Your task to perform on an android device: open device folders in google photos Image 0: 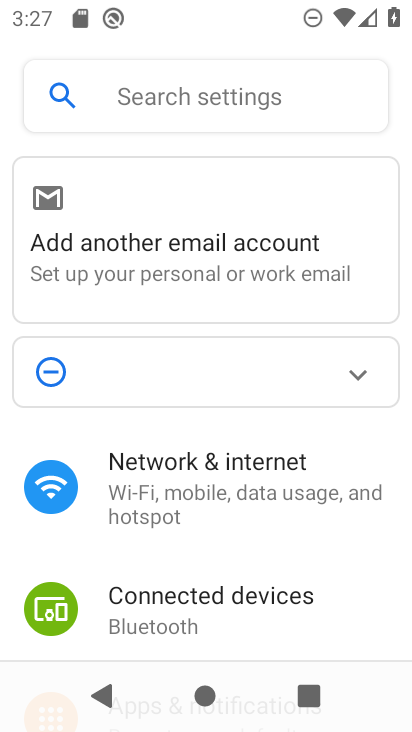
Step 0: press home button
Your task to perform on an android device: open device folders in google photos Image 1: 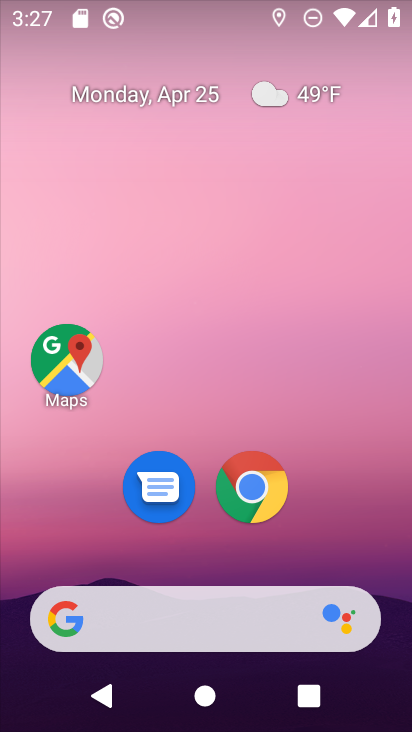
Step 1: drag from (376, 575) to (383, 3)
Your task to perform on an android device: open device folders in google photos Image 2: 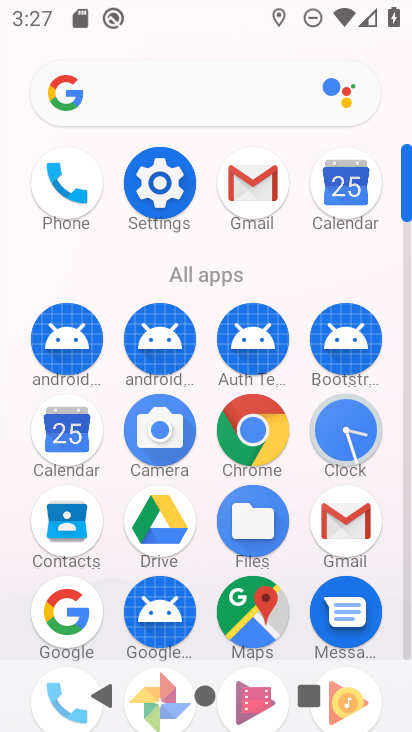
Step 2: click (405, 567)
Your task to perform on an android device: open device folders in google photos Image 3: 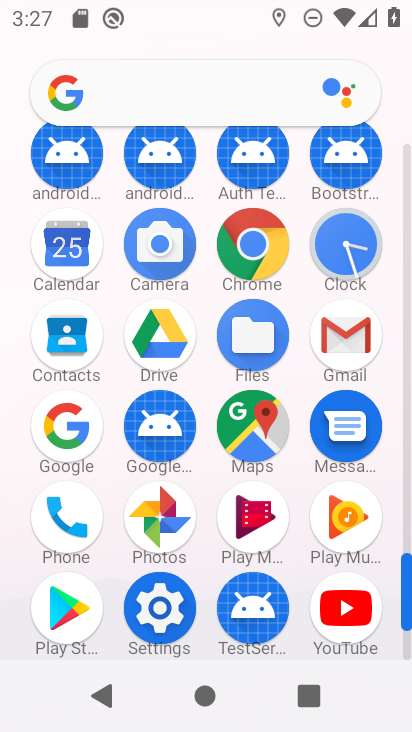
Step 3: click (159, 513)
Your task to perform on an android device: open device folders in google photos Image 4: 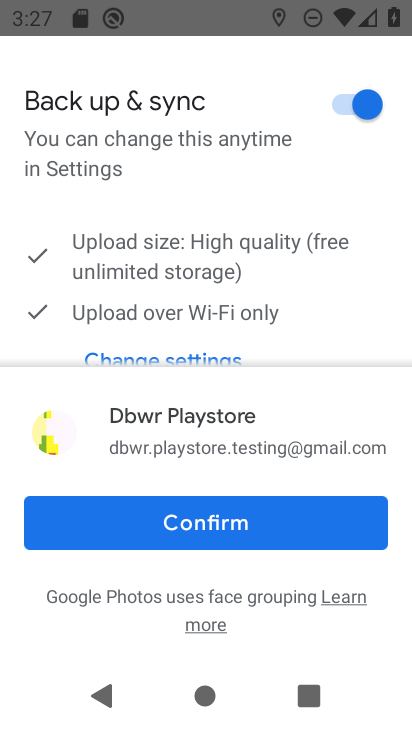
Step 4: click (239, 530)
Your task to perform on an android device: open device folders in google photos Image 5: 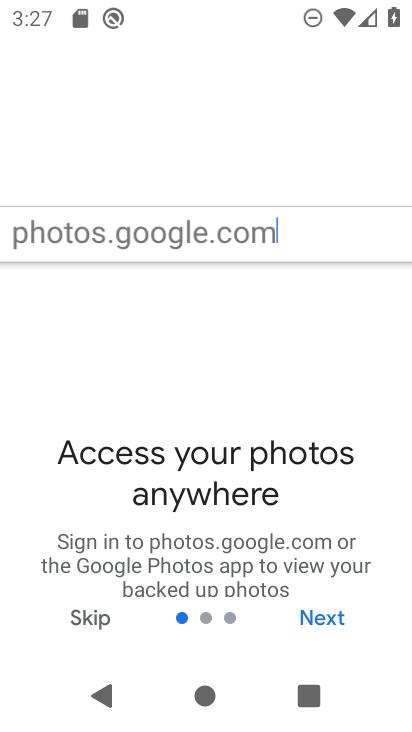
Step 5: click (88, 615)
Your task to perform on an android device: open device folders in google photos Image 6: 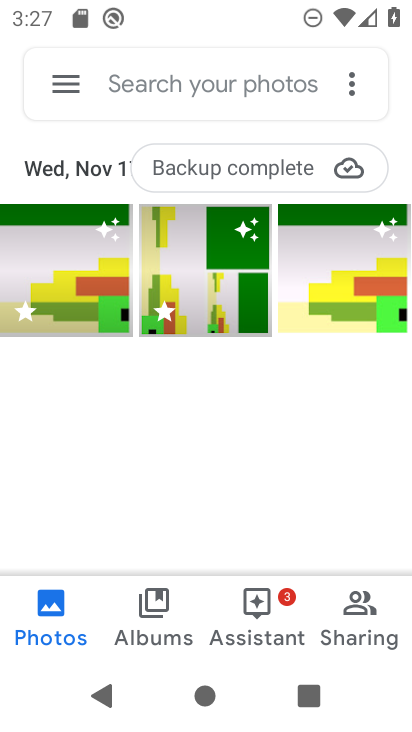
Step 6: click (63, 83)
Your task to perform on an android device: open device folders in google photos Image 7: 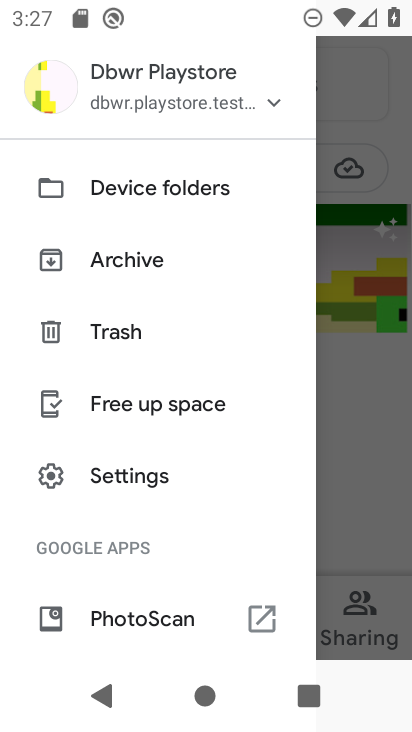
Step 7: click (109, 188)
Your task to perform on an android device: open device folders in google photos Image 8: 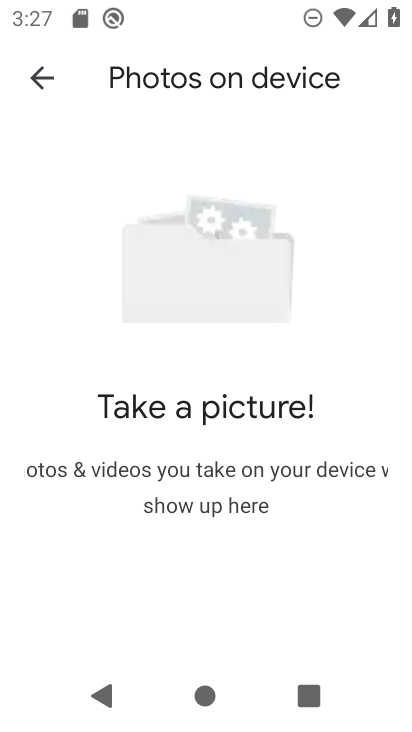
Step 8: task complete